Your task to perform on an android device: When is my next meeting? Image 0: 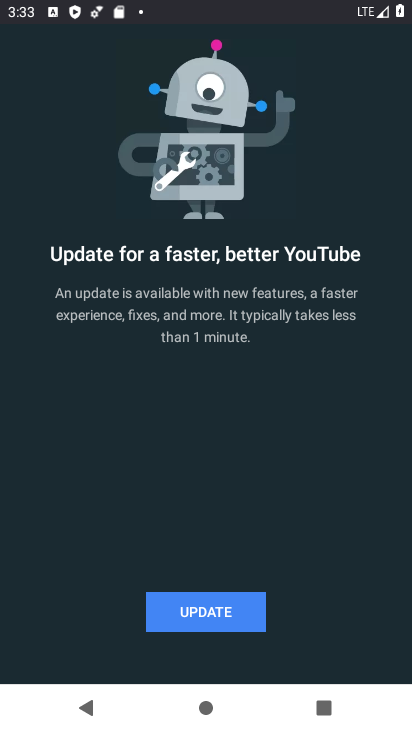
Step 0: press home button
Your task to perform on an android device: When is my next meeting? Image 1: 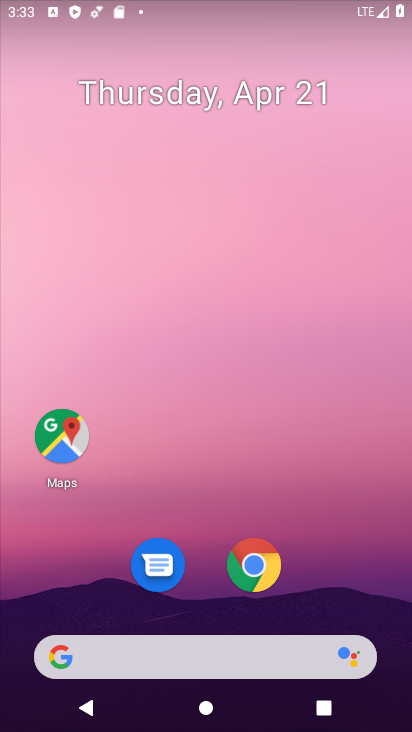
Step 1: drag from (308, 558) to (307, 138)
Your task to perform on an android device: When is my next meeting? Image 2: 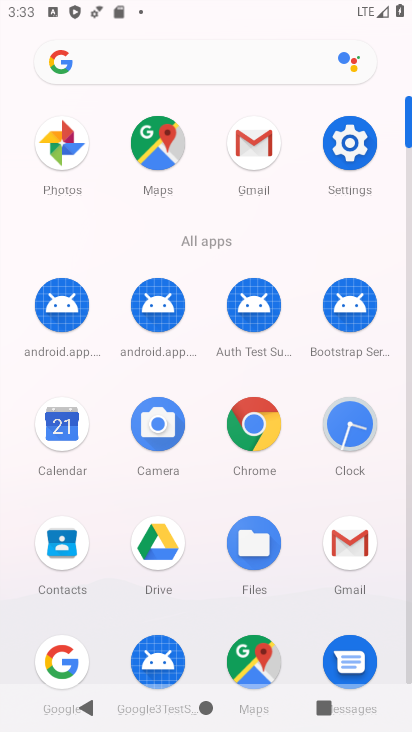
Step 2: click (68, 423)
Your task to perform on an android device: When is my next meeting? Image 3: 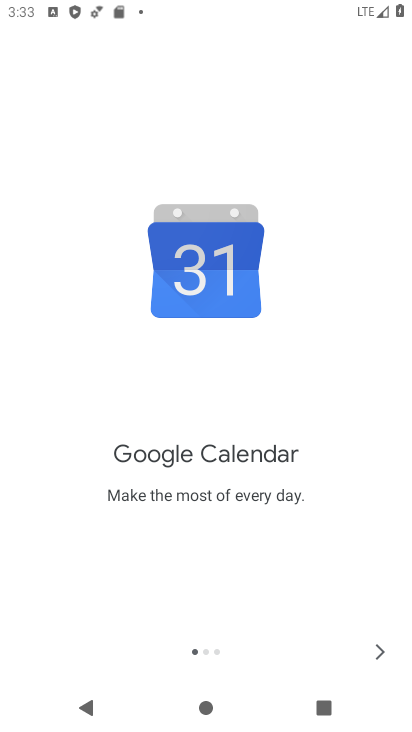
Step 3: click (379, 645)
Your task to perform on an android device: When is my next meeting? Image 4: 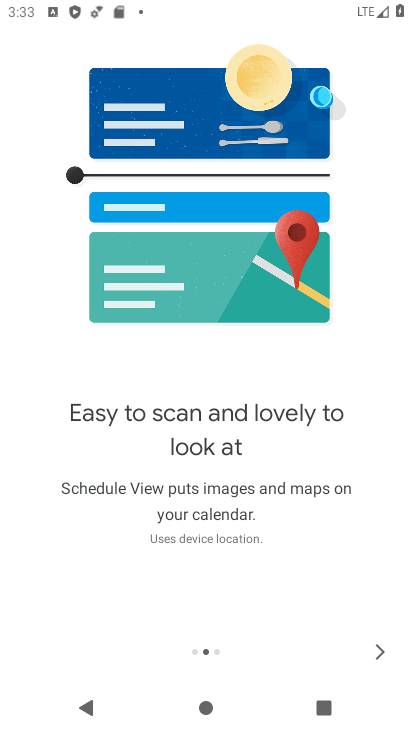
Step 4: click (379, 646)
Your task to perform on an android device: When is my next meeting? Image 5: 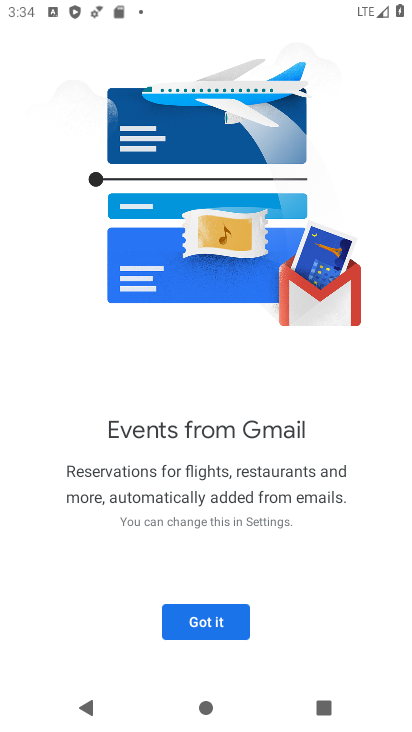
Step 5: click (231, 613)
Your task to perform on an android device: When is my next meeting? Image 6: 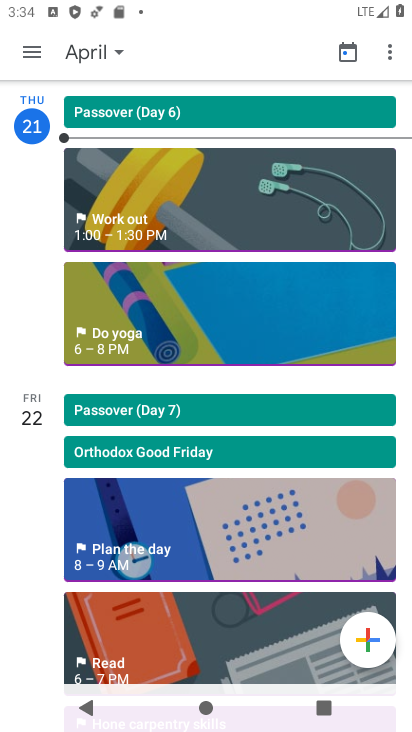
Step 6: task complete